Your task to perform on an android device: Do I have any events this weekend? Image 0: 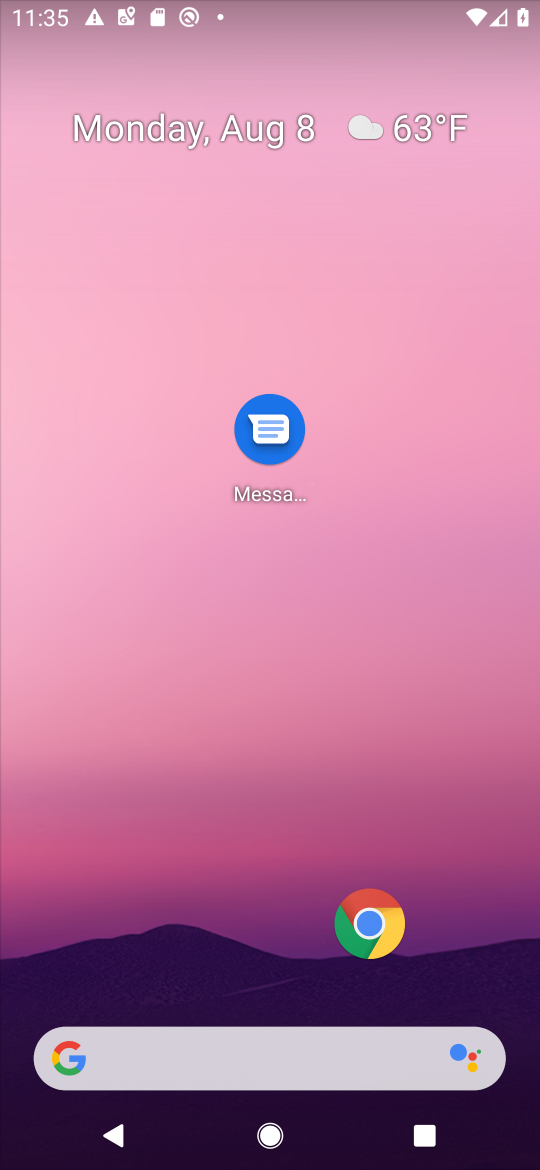
Step 0: drag from (21, 1145) to (527, 242)
Your task to perform on an android device: Do I have any events this weekend? Image 1: 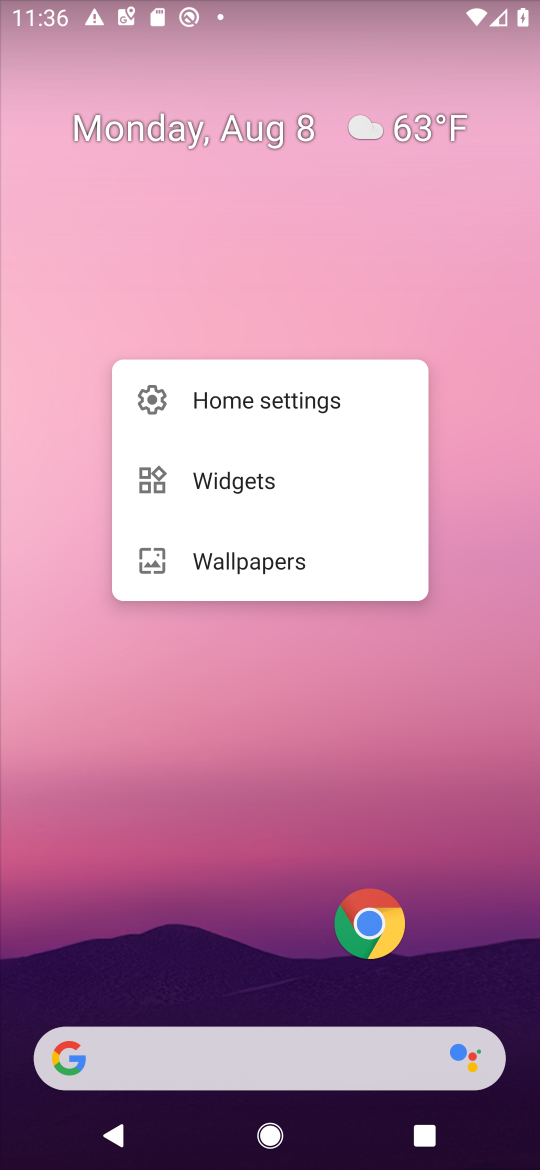
Step 1: task complete